Your task to perform on an android device: Go to Google maps Image 0: 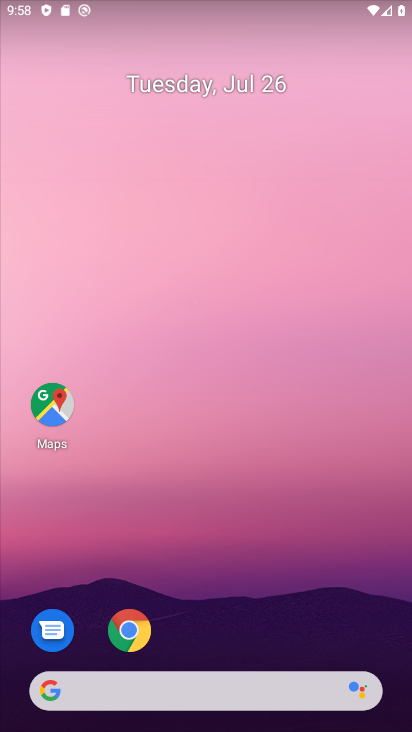
Step 0: click (54, 410)
Your task to perform on an android device: Go to Google maps Image 1: 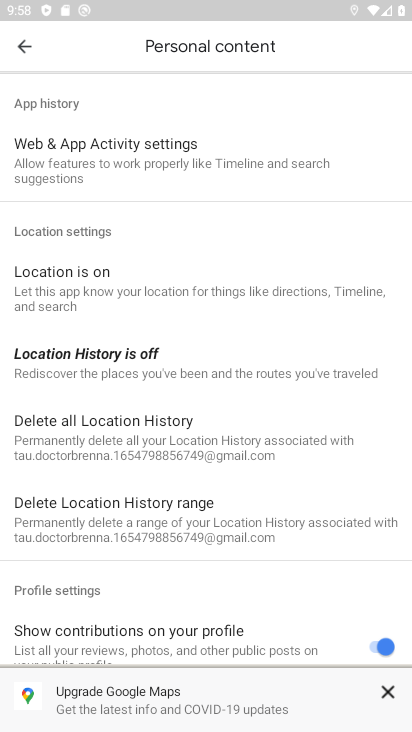
Step 1: task complete